Your task to perform on an android device: move a message to another label in the gmail app Image 0: 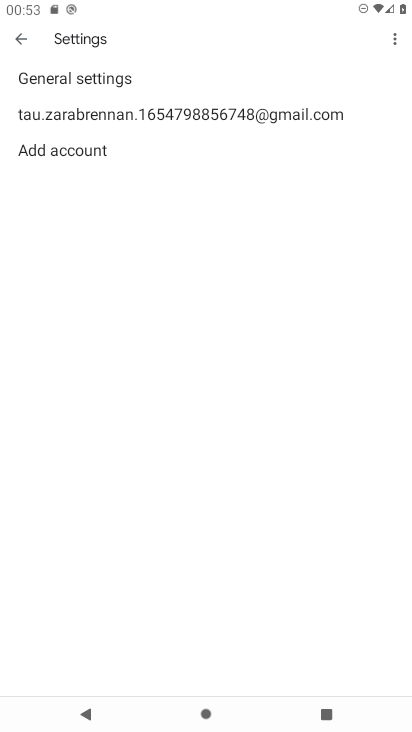
Step 0: press home button
Your task to perform on an android device: move a message to another label in the gmail app Image 1: 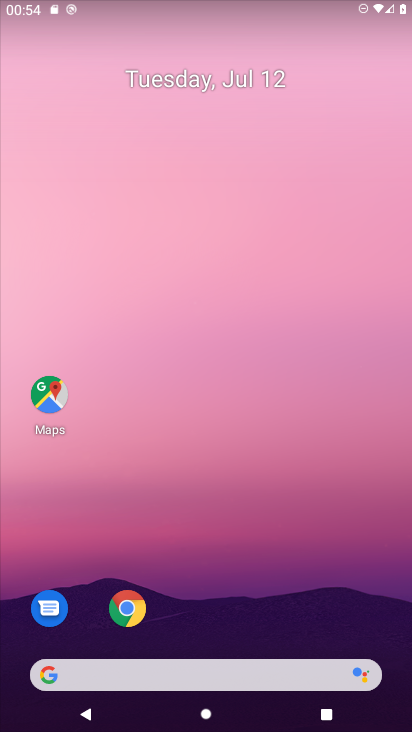
Step 1: drag from (233, 629) to (180, 95)
Your task to perform on an android device: move a message to another label in the gmail app Image 2: 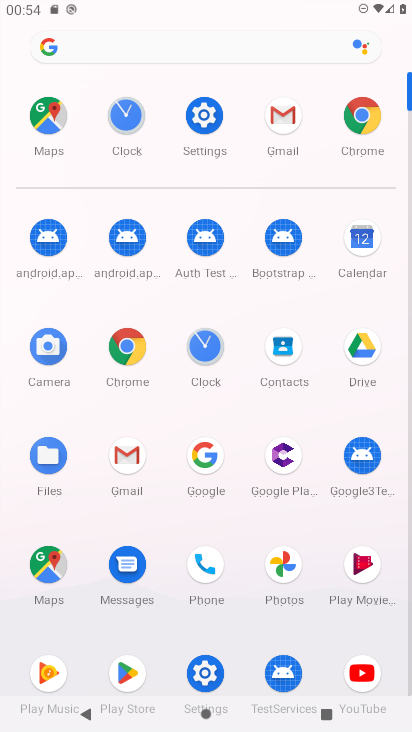
Step 2: click (110, 465)
Your task to perform on an android device: move a message to another label in the gmail app Image 3: 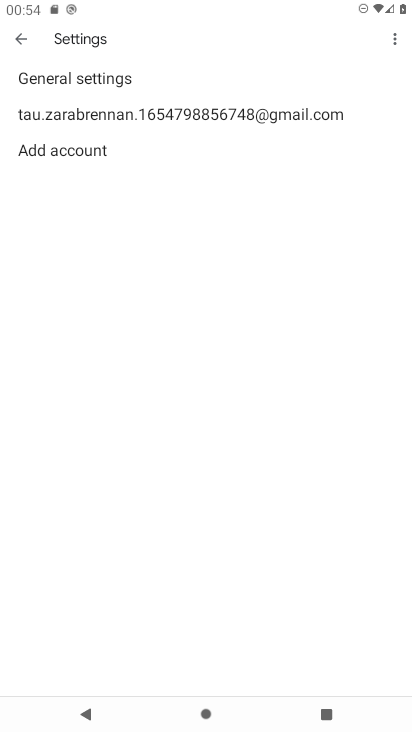
Step 3: click (26, 32)
Your task to perform on an android device: move a message to another label in the gmail app Image 4: 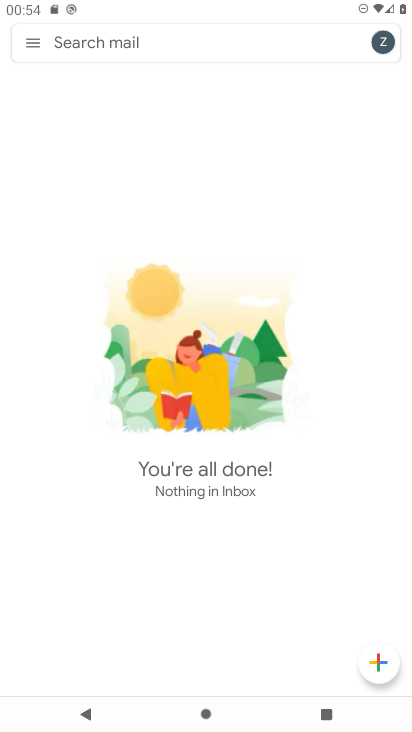
Step 4: task complete